Your task to perform on an android device: turn on sleep mode Image 0: 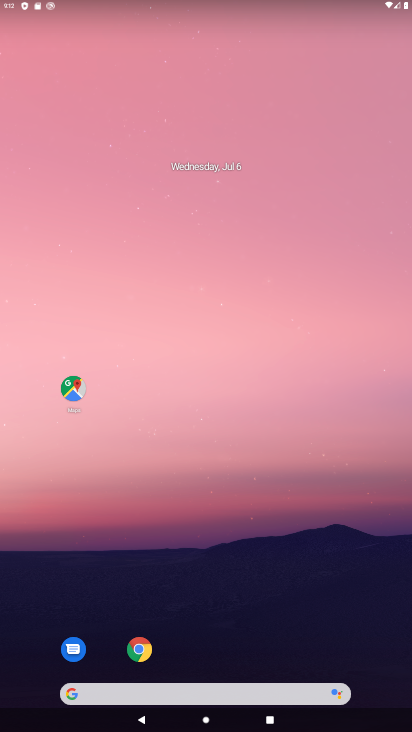
Step 0: drag from (245, 623) to (240, 276)
Your task to perform on an android device: turn on sleep mode Image 1: 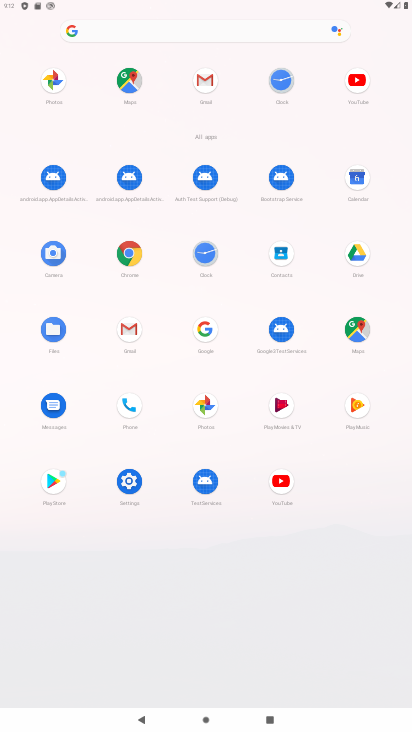
Step 1: click (133, 479)
Your task to perform on an android device: turn on sleep mode Image 2: 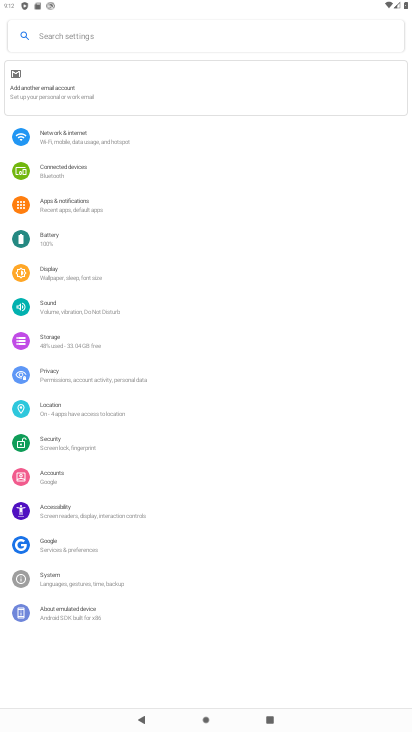
Step 2: click (203, 30)
Your task to perform on an android device: turn on sleep mode Image 3: 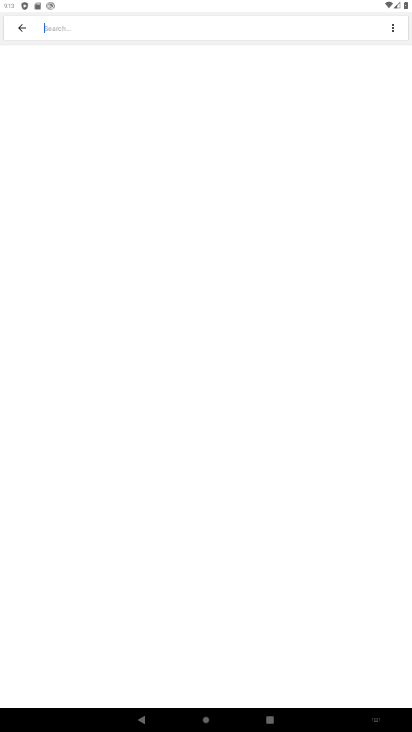
Step 3: type "sleep mode"
Your task to perform on an android device: turn on sleep mode Image 4: 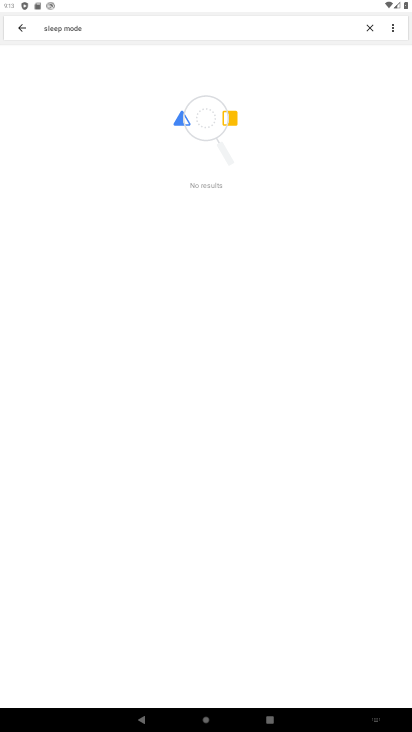
Step 4: task complete